Your task to perform on an android device: set an alarm Image 0: 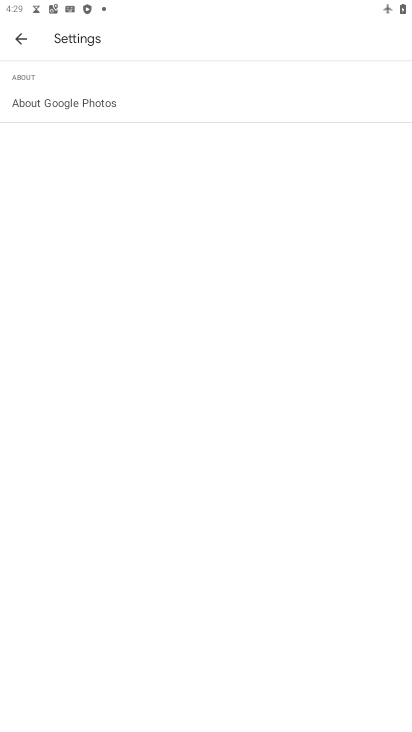
Step 0: press home button
Your task to perform on an android device: set an alarm Image 1: 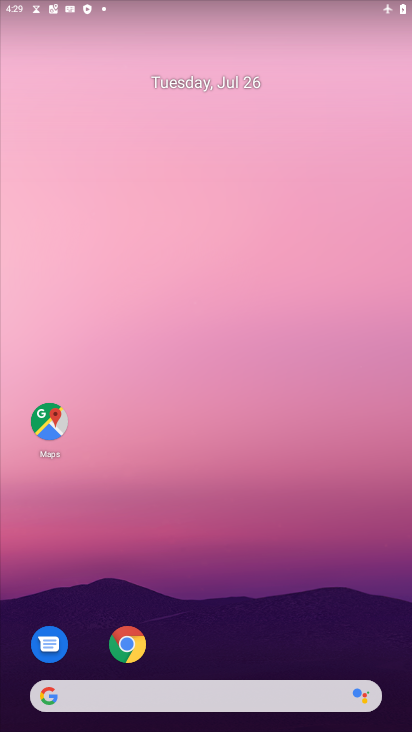
Step 1: drag from (262, 638) to (173, 123)
Your task to perform on an android device: set an alarm Image 2: 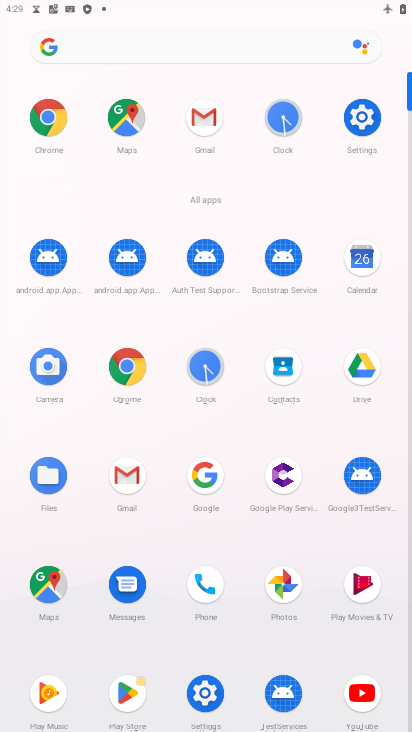
Step 2: click (278, 118)
Your task to perform on an android device: set an alarm Image 3: 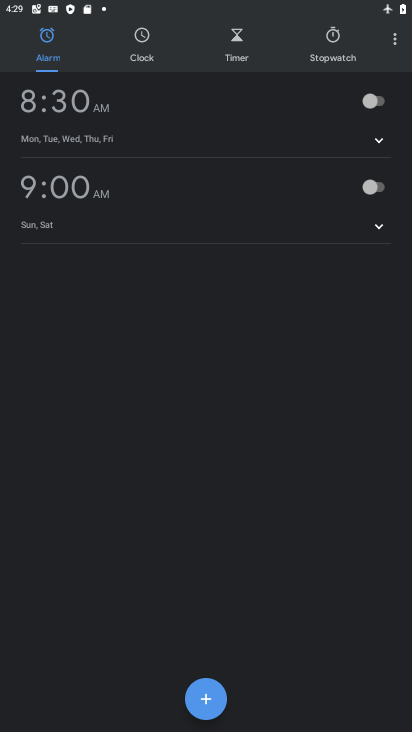
Step 3: click (211, 698)
Your task to perform on an android device: set an alarm Image 4: 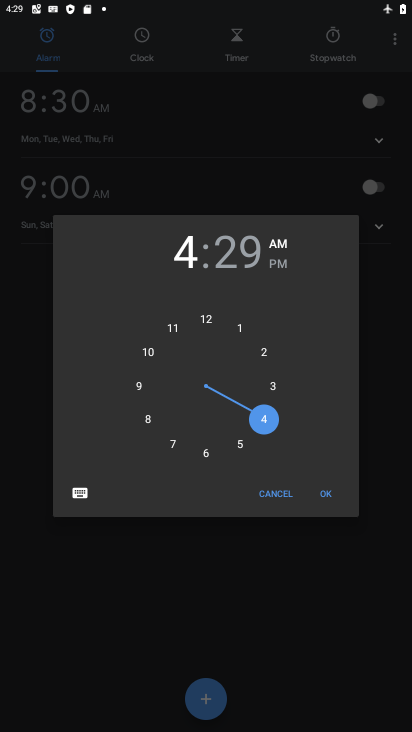
Step 4: click (326, 496)
Your task to perform on an android device: set an alarm Image 5: 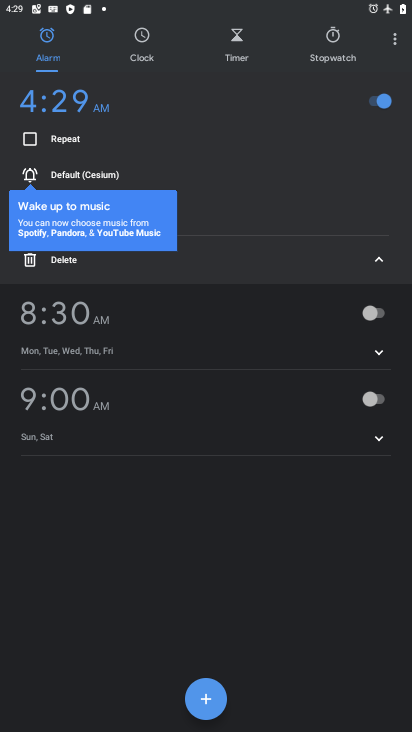
Step 5: task complete